Your task to perform on an android device: Go to display settings Image 0: 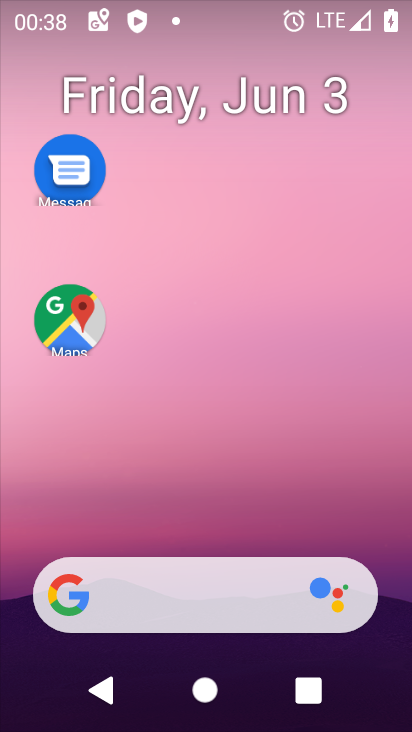
Step 0: press home button
Your task to perform on an android device: Go to display settings Image 1: 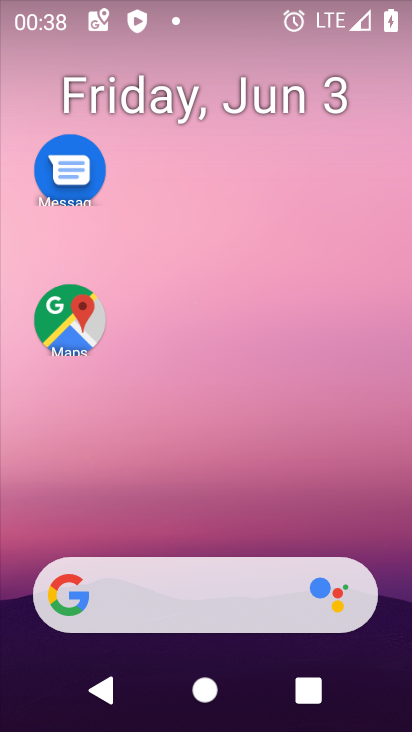
Step 1: drag from (232, 526) to (238, 50)
Your task to perform on an android device: Go to display settings Image 2: 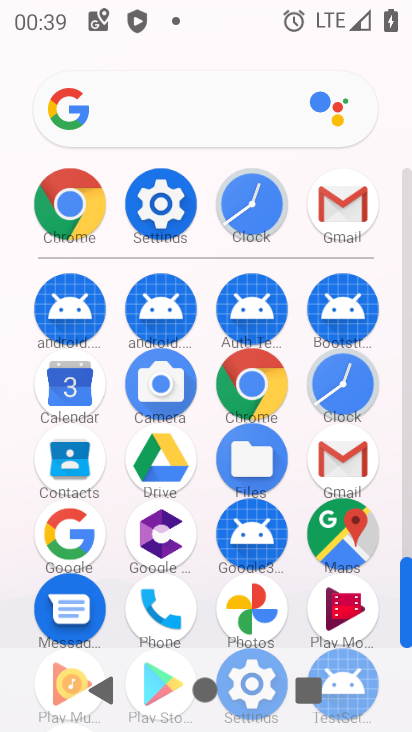
Step 2: drag from (265, 623) to (307, 366)
Your task to perform on an android device: Go to display settings Image 3: 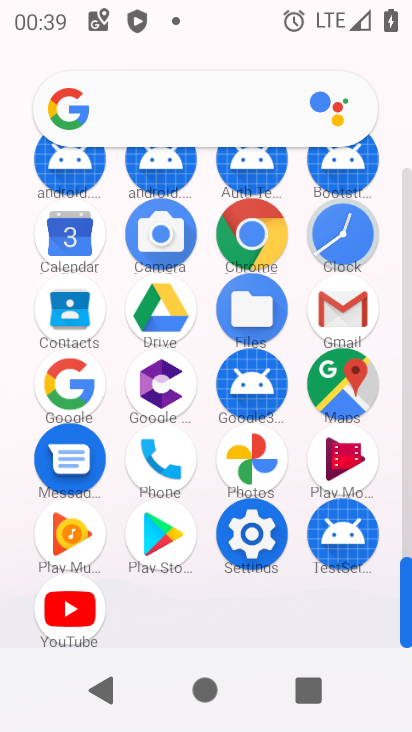
Step 3: click (227, 538)
Your task to perform on an android device: Go to display settings Image 4: 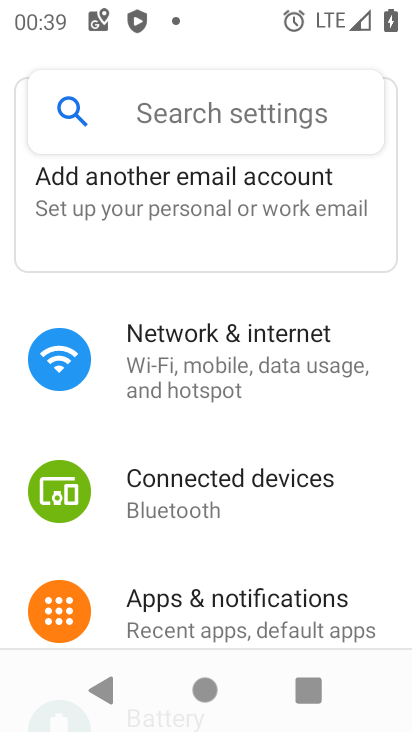
Step 4: drag from (231, 535) to (250, 32)
Your task to perform on an android device: Go to display settings Image 5: 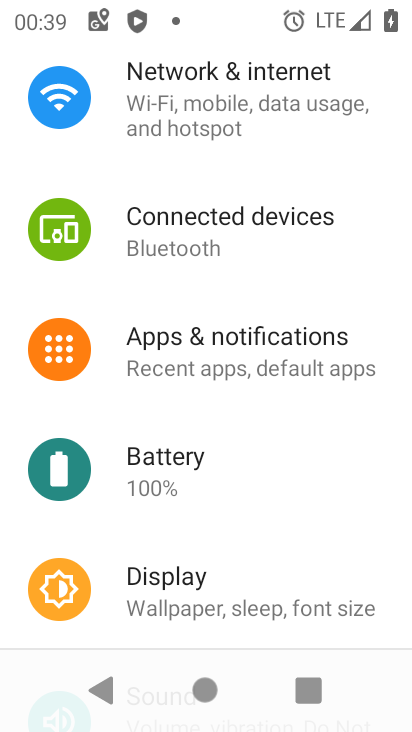
Step 5: click (193, 593)
Your task to perform on an android device: Go to display settings Image 6: 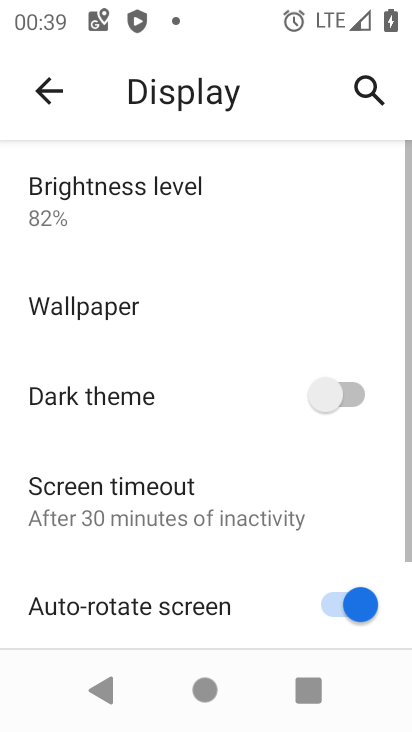
Step 6: task complete